Your task to perform on an android device: Do I have any events tomorrow? Image 0: 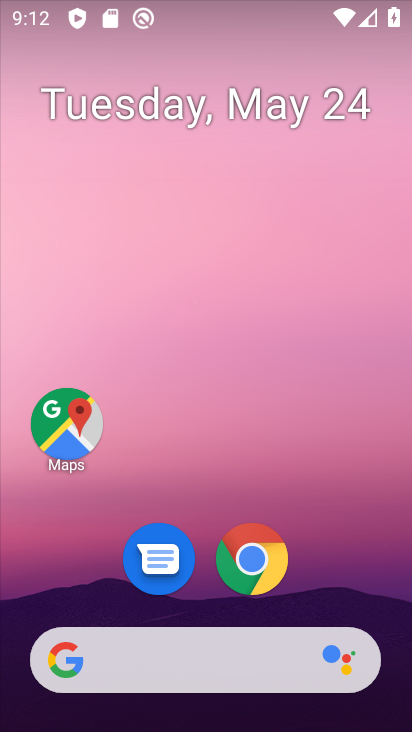
Step 0: drag from (359, 580) to (348, 116)
Your task to perform on an android device: Do I have any events tomorrow? Image 1: 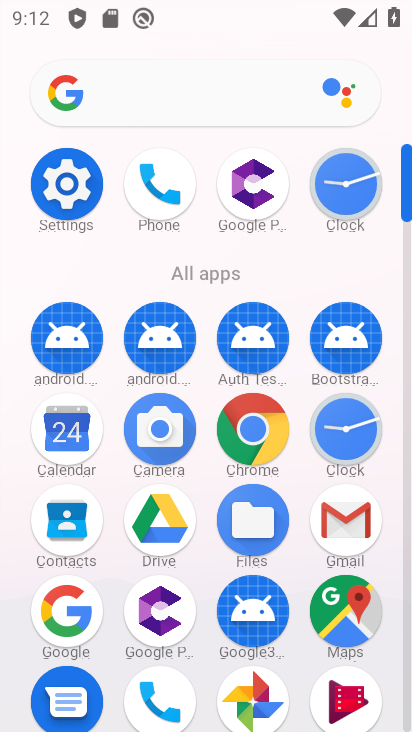
Step 1: click (58, 446)
Your task to perform on an android device: Do I have any events tomorrow? Image 2: 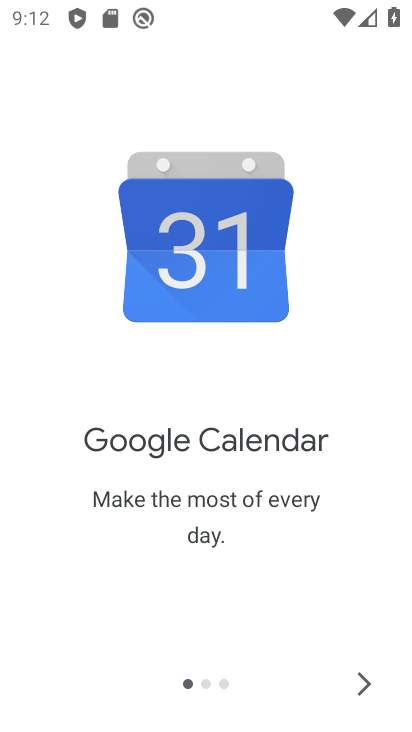
Step 2: click (365, 671)
Your task to perform on an android device: Do I have any events tomorrow? Image 3: 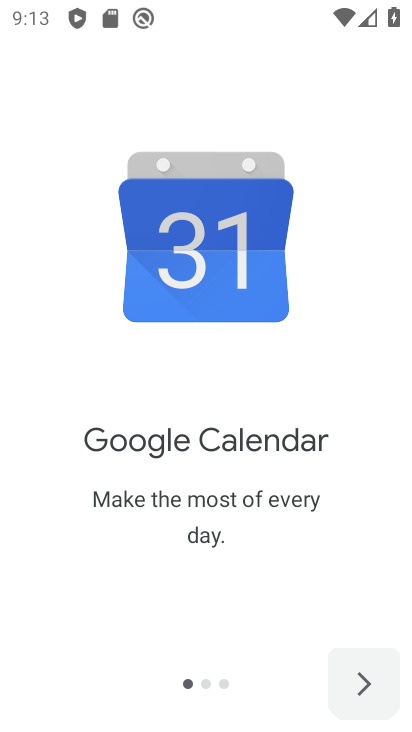
Step 3: click (365, 671)
Your task to perform on an android device: Do I have any events tomorrow? Image 4: 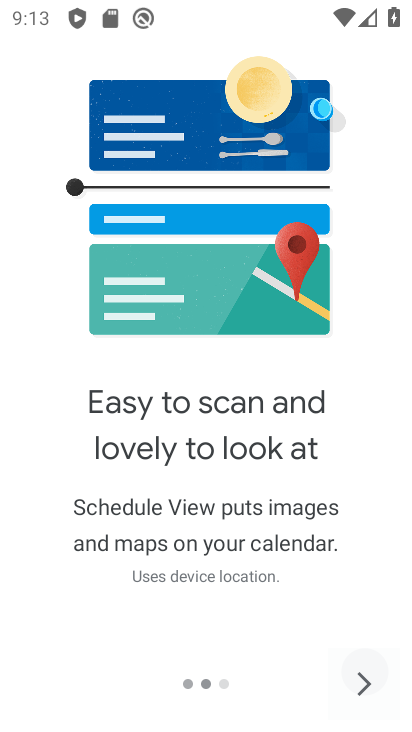
Step 4: click (365, 671)
Your task to perform on an android device: Do I have any events tomorrow? Image 5: 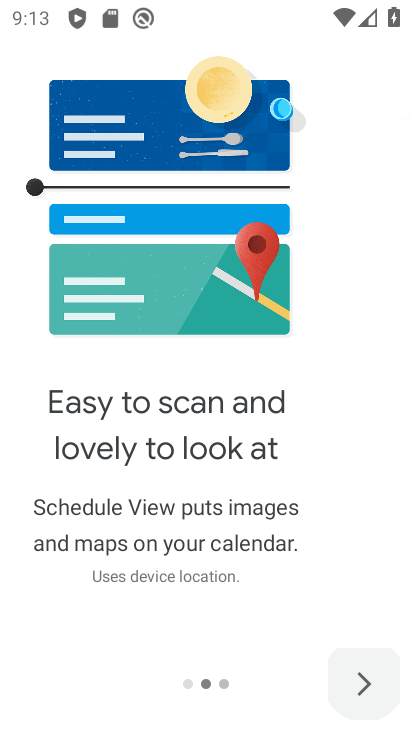
Step 5: click (365, 671)
Your task to perform on an android device: Do I have any events tomorrow? Image 6: 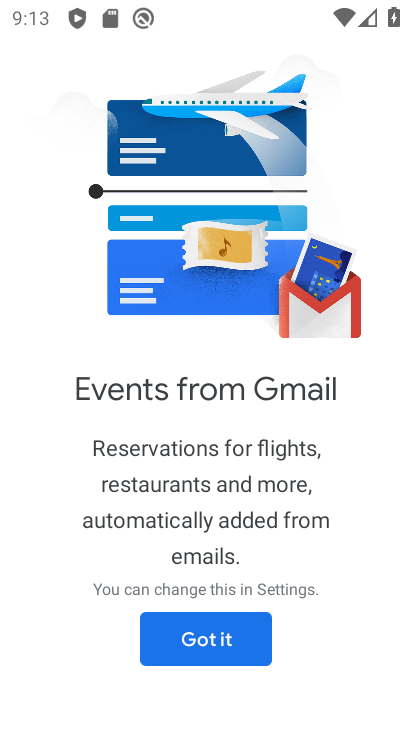
Step 6: click (365, 671)
Your task to perform on an android device: Do I have any events tomorrow? Image 7: 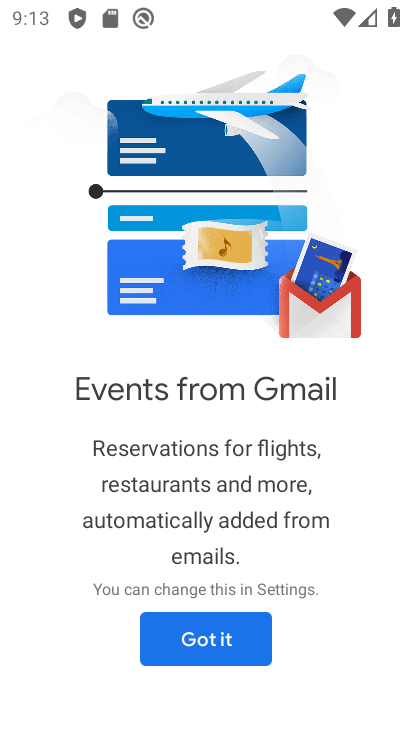
Step 7: click (229, 645)
Your task to perform on an android device: Do I have any events tomorrow? Image 8: 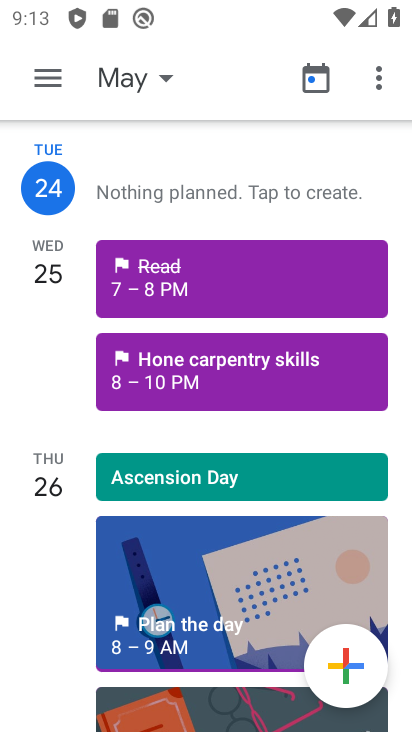
Step 8: task complete